Your task to perform on an android device: Open Google Chrome and open the bookmarks view Image 0: 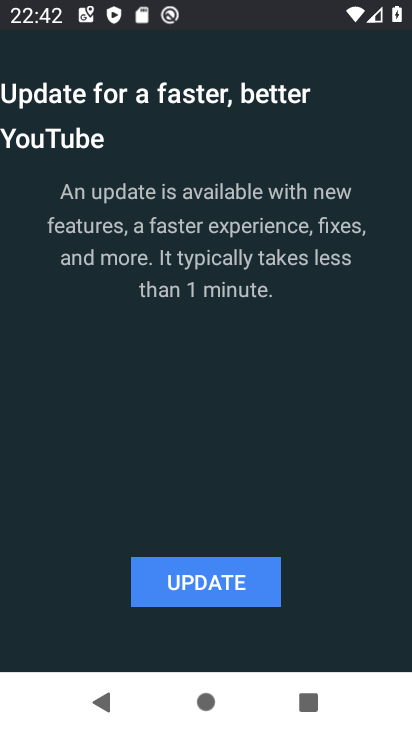
Step 0: press back button
Your task to perform on an android device: Open Google Chrome and open the bookmarks view Image 1: 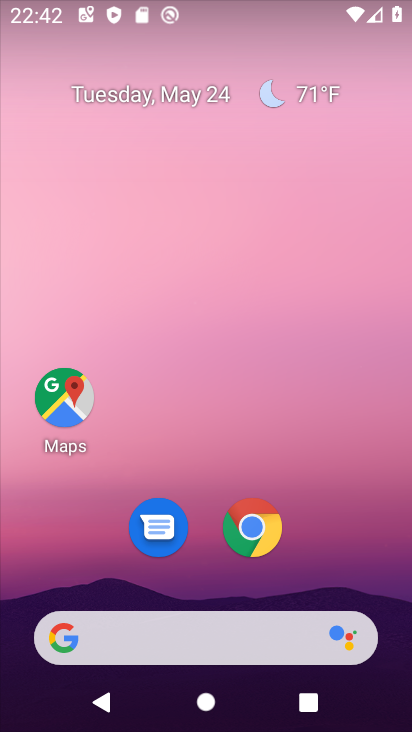
Step 1: click (244, 521)
Your task to perform on an android device: Open Google Chrome and open the bookmarks view Image 2: 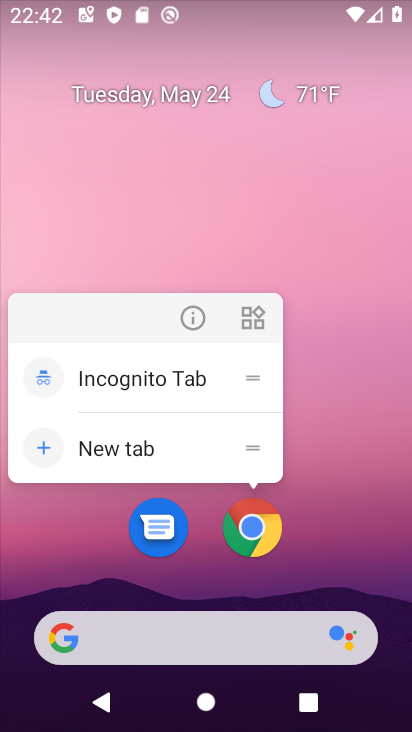
Step 2: click (252, 502)
Your task to perform on an android device: Open Google Chrome and open the bookmarks view Image 3: 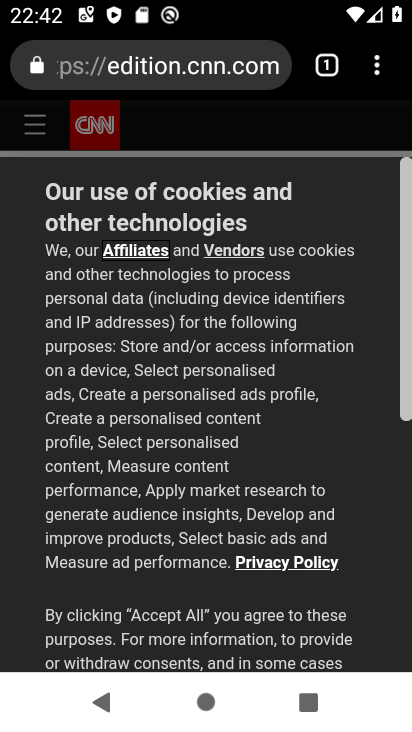
Step 3: click (378, 69)
Your task to perform on an android device: Open Google Chrome and open the bookmarks view Image 4: 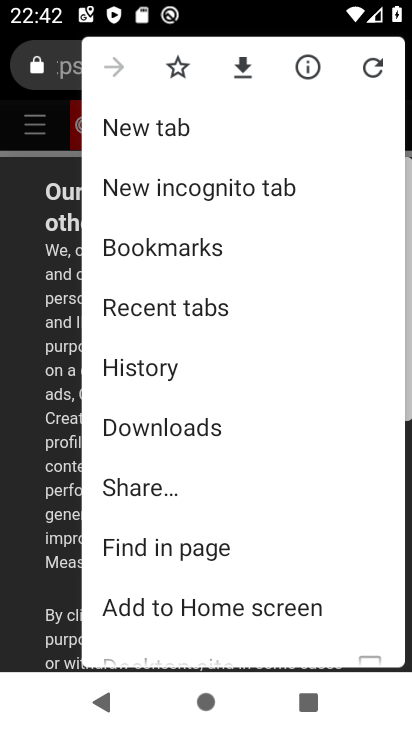
Step 4: click (157, 268)
Your task to perform on an android device: Open Google Chrome and open the bookmarks view Image 5: 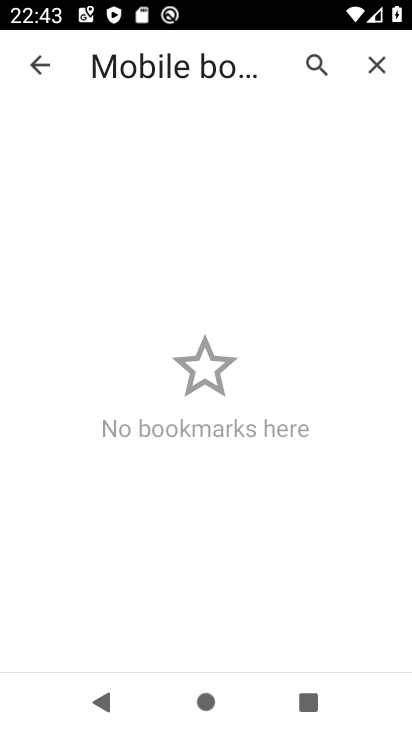
Step 5: task complete